Your task to perform on an android device: empty trash in the gmail app Image 0: 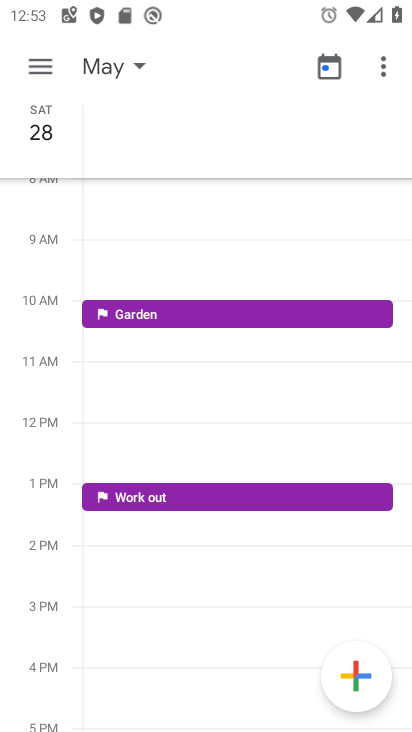
Step 0: press home button
Your task to perform on an android device: empty trash in the gmail app Image 1: 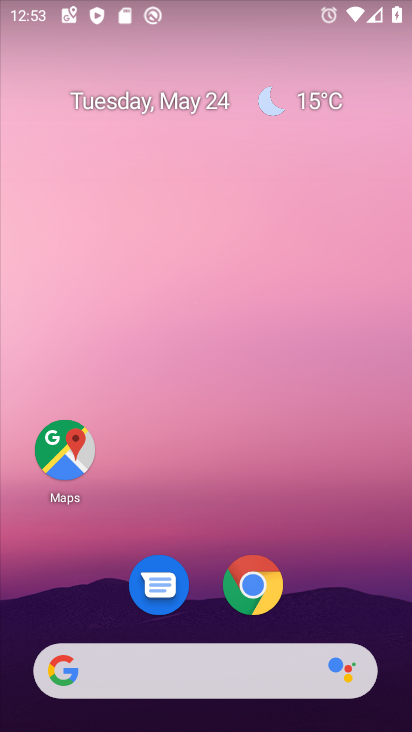
Step 1: drag from (213, 520) to (260, 7)
Your task to perform on an android device: empty trash in the gmail app Image 2: 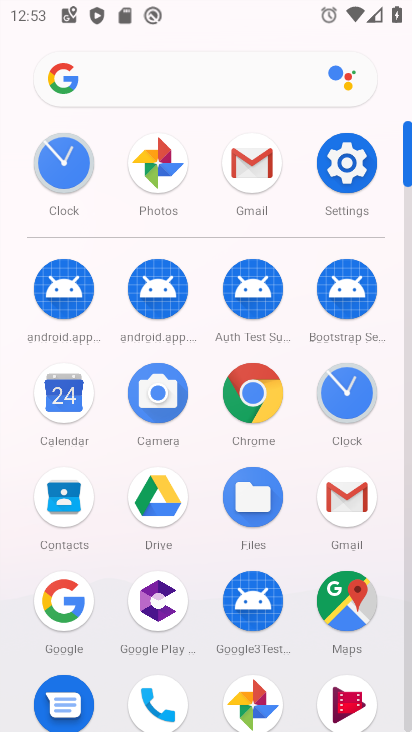
Step 2: click (263, 161)
Your task to perform on an android device: empty trash in the gmail app Image 3: 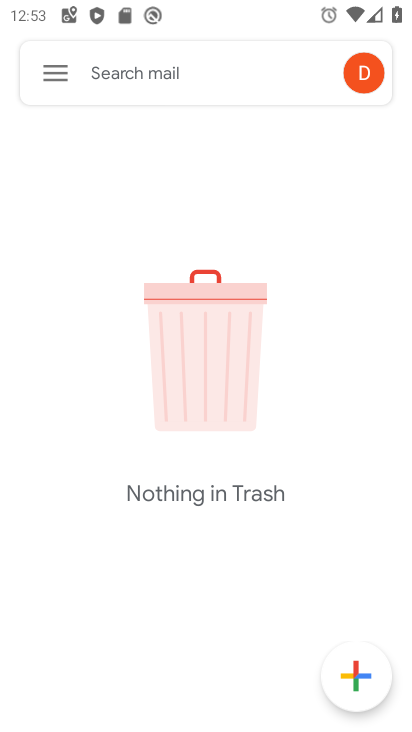
Step 3: task complete